Your task to perform on an android device: turn on location history Image 0: 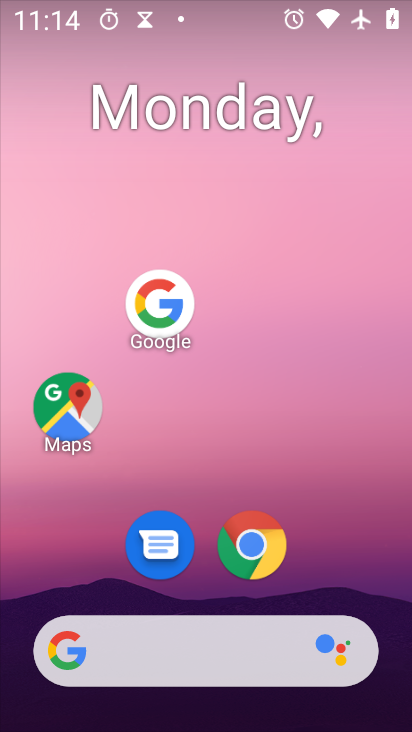
Step 0: press home button
Your task to perform on an android device: turn on location history Image 1: 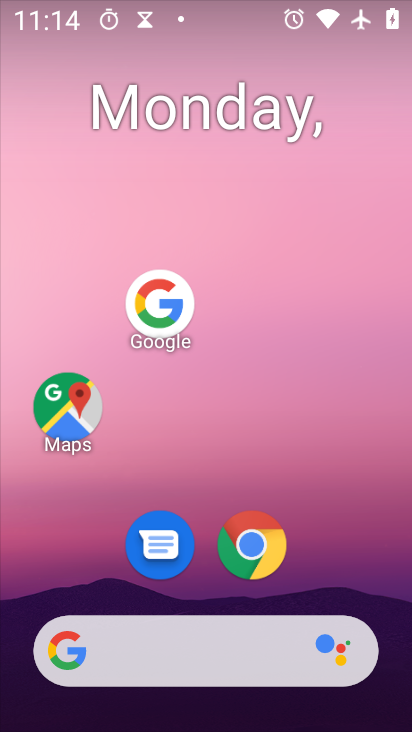
Step 1: click (74, 424)
Your task to perform on an android device: turn on location history Image 2: 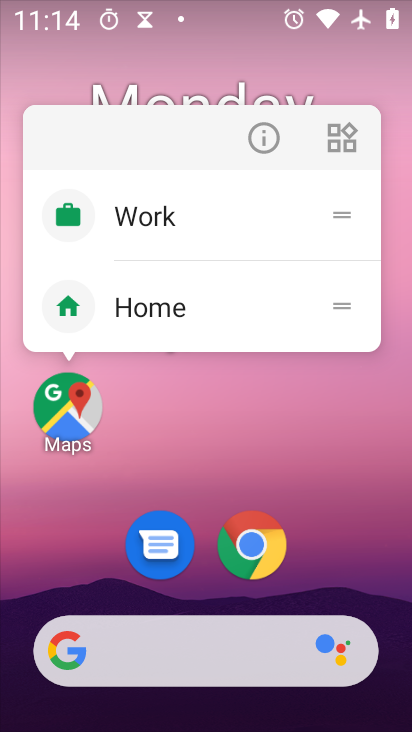
Step 2: click (74, 424)
Your task to perform on an android device: turn on location history Image 3: 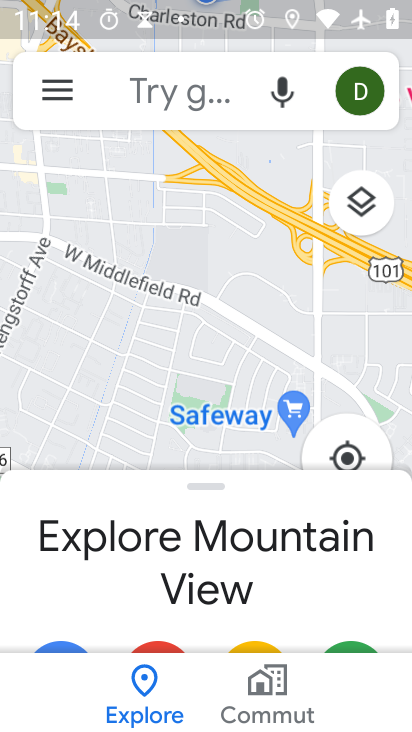
Step 3: click (61, 70)
Your task to perform on an android device: turn on location history Image 4: 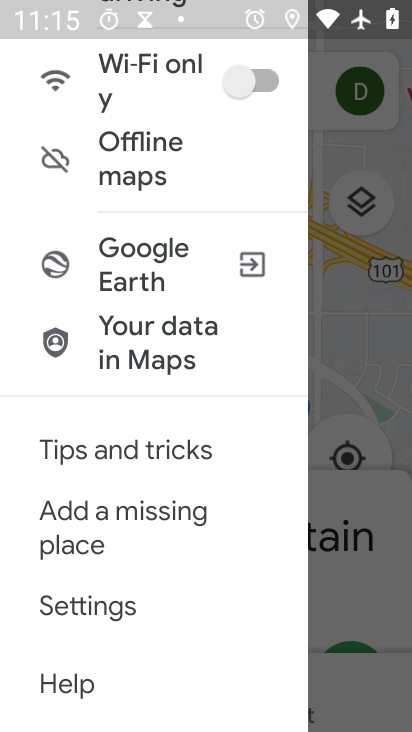
Step 4: drag from (181, 152) to (118, 610)
Your task to perform on an android device: turn on location history Image 5: 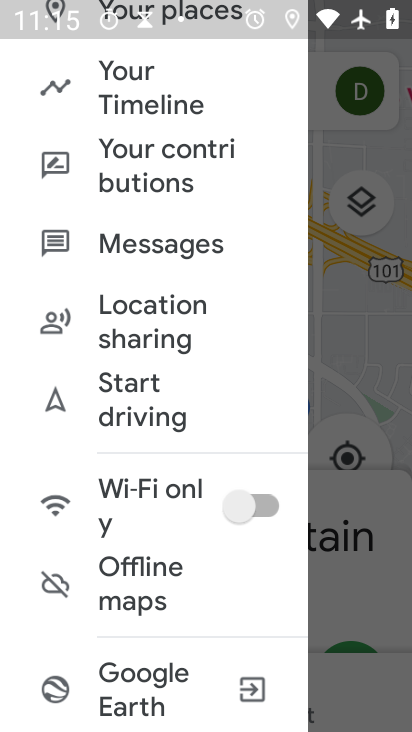
Step 5: drag from (169, 114) to (128, 511)
Your task to perform on an android device: turn on location history Image 6: 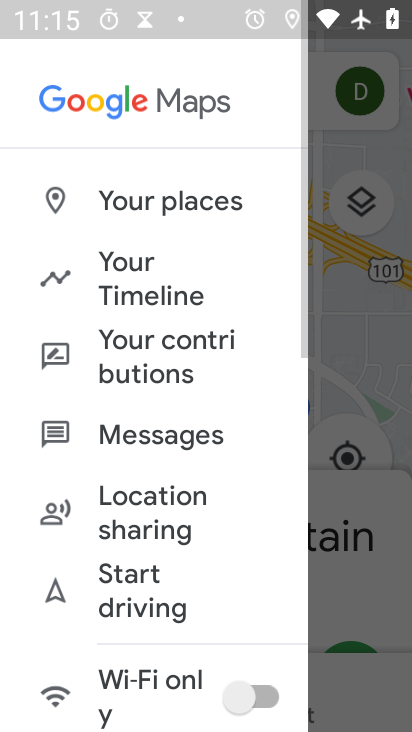
Step 6: click (181, 286)
Your task to perform on an android device: turn on location history Image 7: 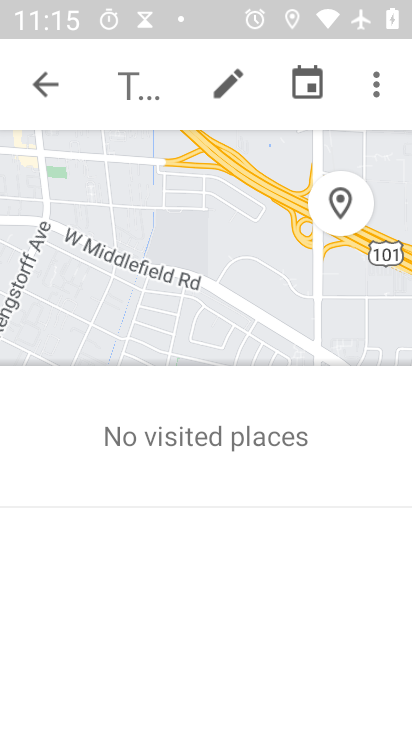
Step 7: click (377, 87)
Your task to perform on an android device: turn on location history Image 8: 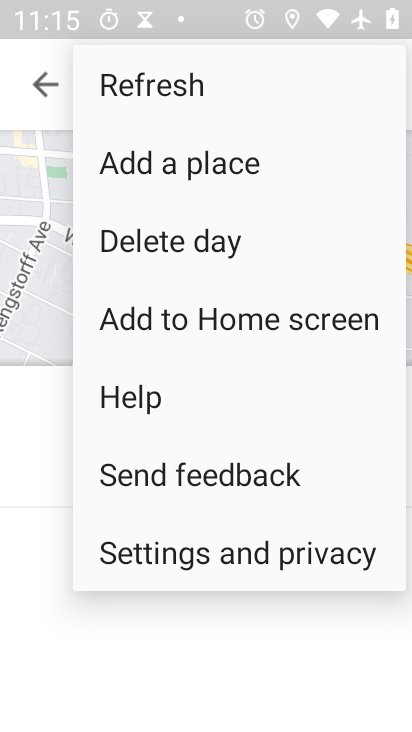
Step 8: click (264, 560)
Your task to perform on an android device: turn on location history Image 9: 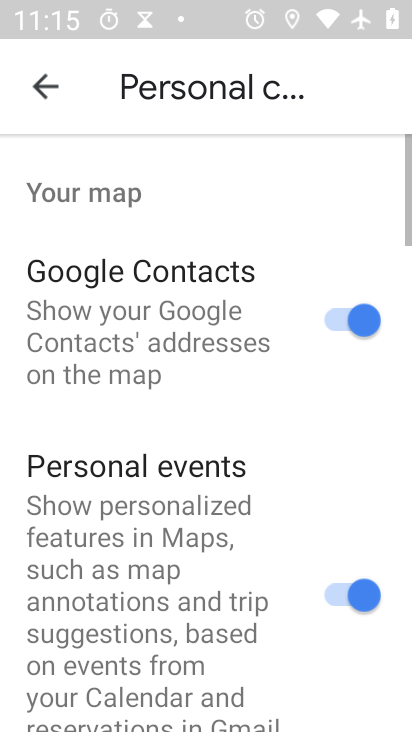
Step 9: drag from (218, 586) to (411, 66)
Your task to perform on an android device: turn on location history Image 10: 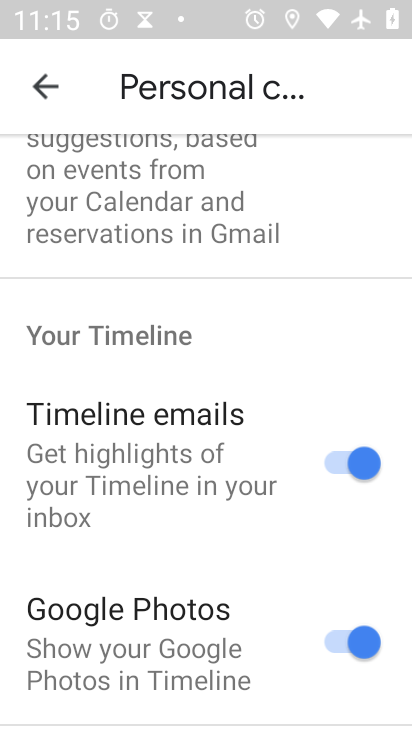
Step 10: drag from (178, 646) to (276, 263)
Your task to perform on an android device: turn on location history Image 11: 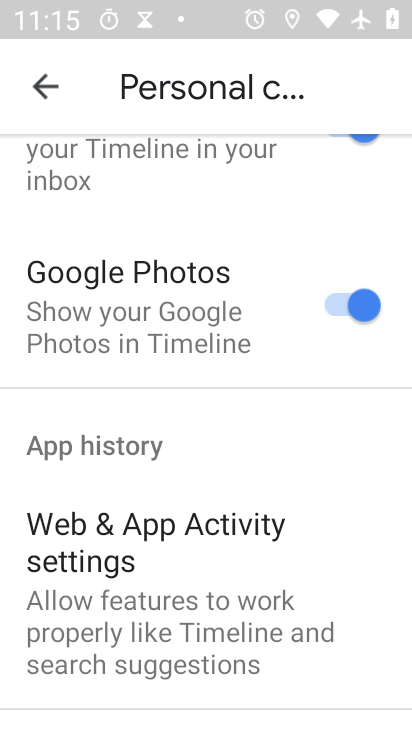
Step 11: drag from (238, 665) to (330, 250)
Your task to perform on an android device: turn on location history Image 12: 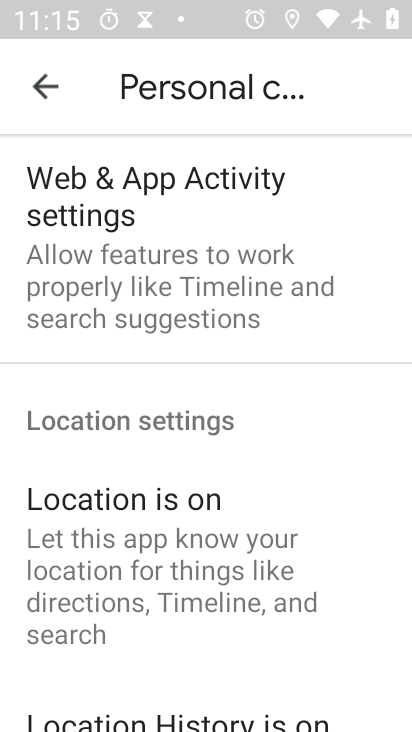
Step 12: drag from (206, 627) to (366, 139)
Your task to perform on an android device: turn on location history Image 13: 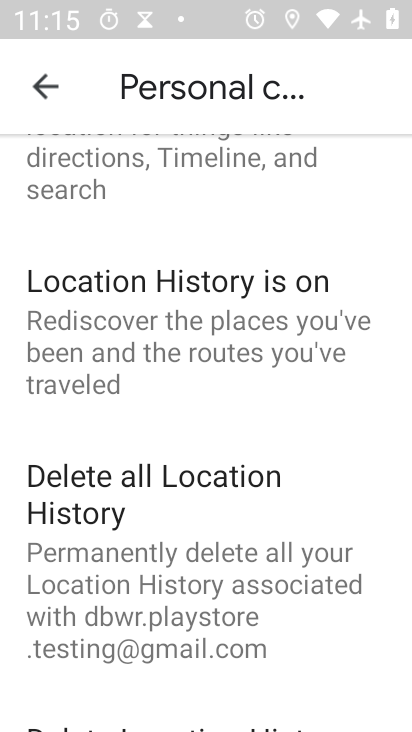
Step 13: click (221, 331)
Your task to perform on an android device: turn on location history Image 14: 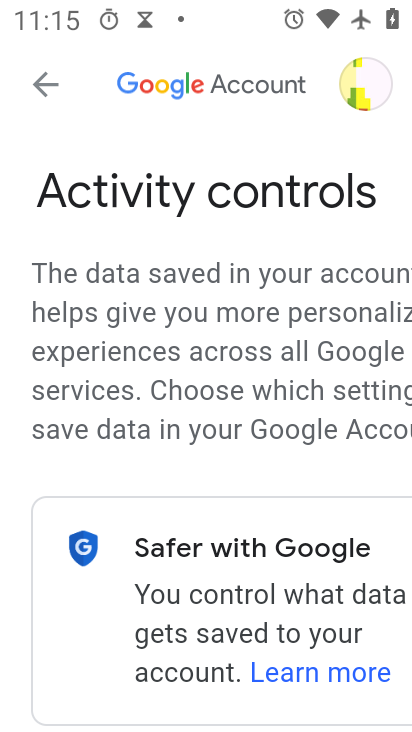
Step 14: task complete